Your task to perform on an android device: turn off notifications settings in the gmail app Image 0: 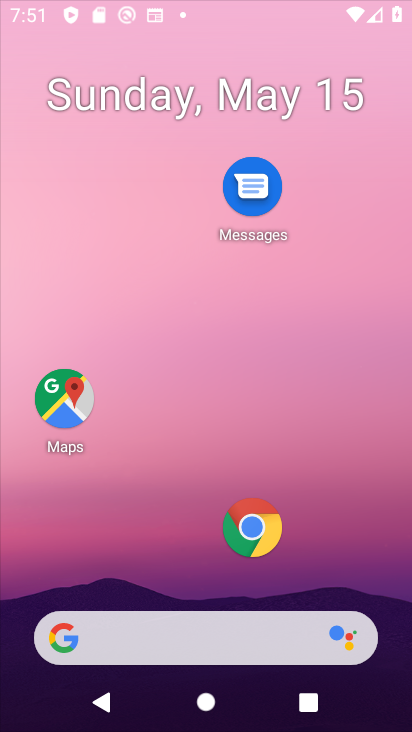
Step 0: press home button
Your task to perform on an android device: turn off notifications settings in the gmail app Image 1: 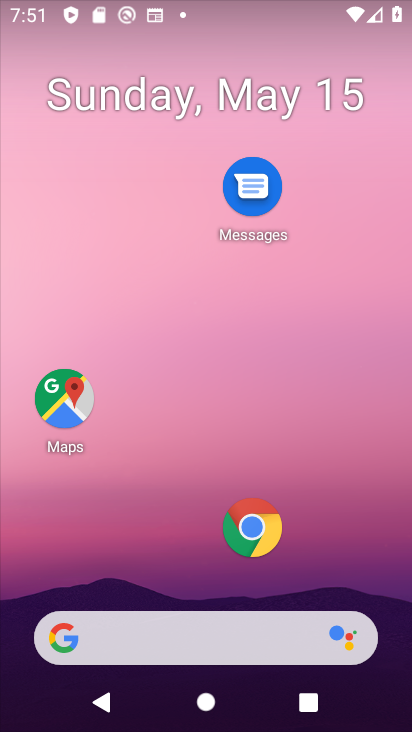
Step 1: drag from (160, 637) to (297, 72)
Your task to perform on an android device: turn off notifications settings in the gmail app Image 2: 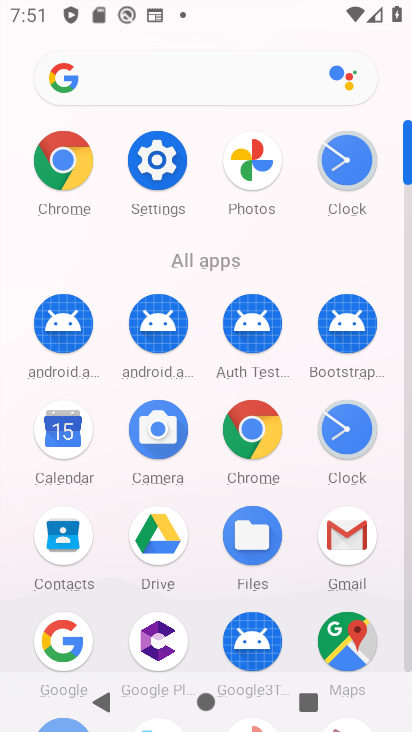
Step 2: click (342, 542)
Your task to perform on an android device: turn off notifications settings in the gmail app Image 3: 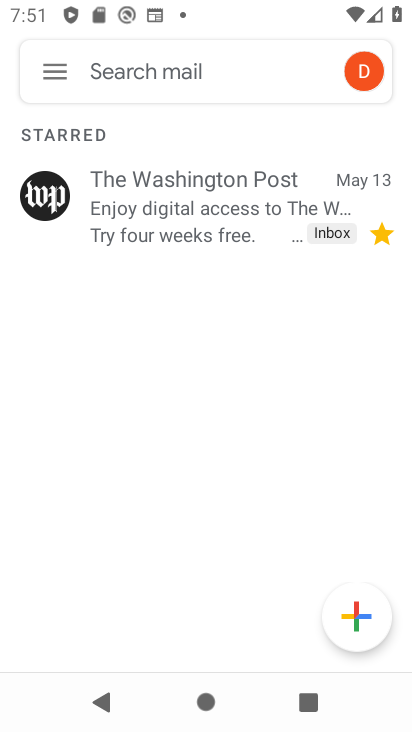
Step 3: click (51, 78)
Your task to perform on an android device: turn off notifications settings in the gmail app Image 4: 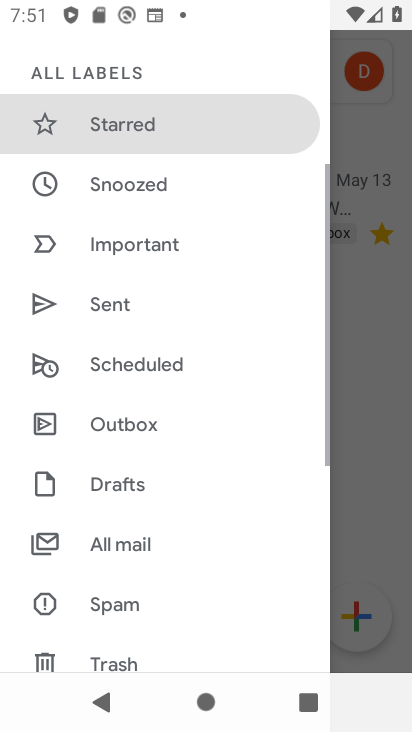
Step 4: drag from (163, 596) to (342, 65)
Your task to perform on an android device: turn off notifications settings in the gmail app Image 5: 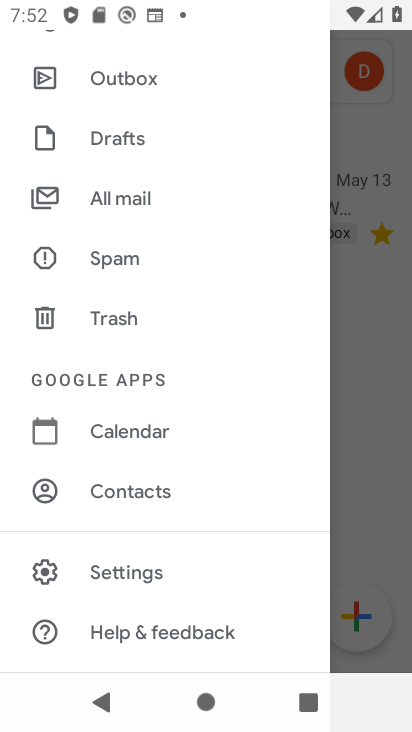
Step 5: click (149, 576)
Your task to perform on an android device: turn off notifications settings in the gmail app Image 6: 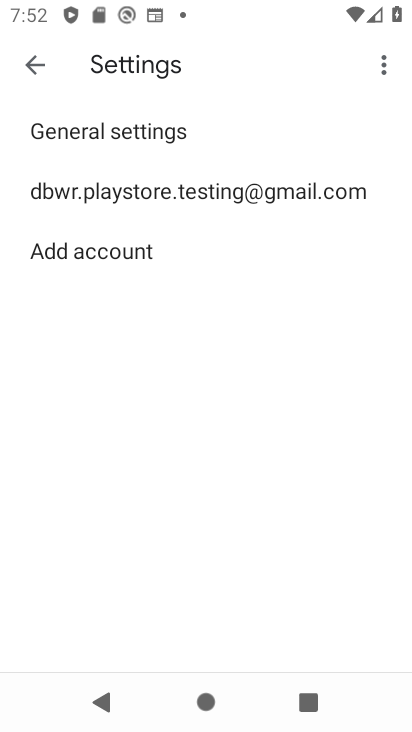
Step 6: click (280, 194)
Your task to perform on an android device: turn off notifications settings in the gmail app Image 7: 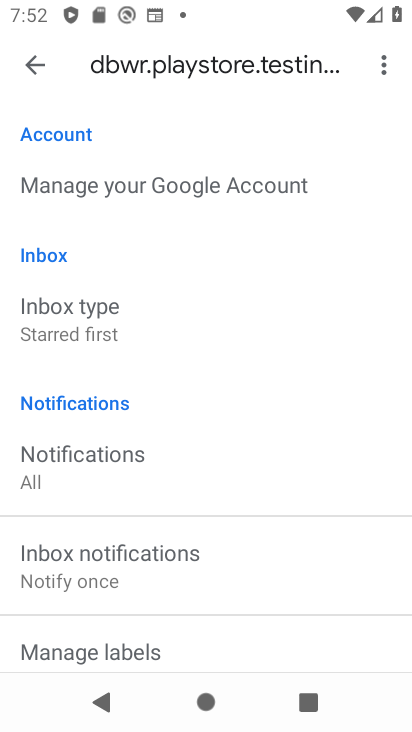
Step 7: click (112, 460)
Your task to perform on an android device: turn off notifications settings in the gmail app Image 8: 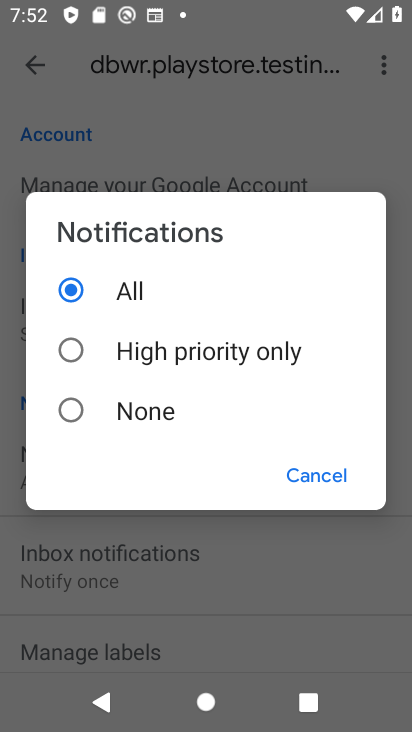
Step 8: click (63, 410)
Your task to perform on an android device: turn off notifications settings in the gmail app Image 9: 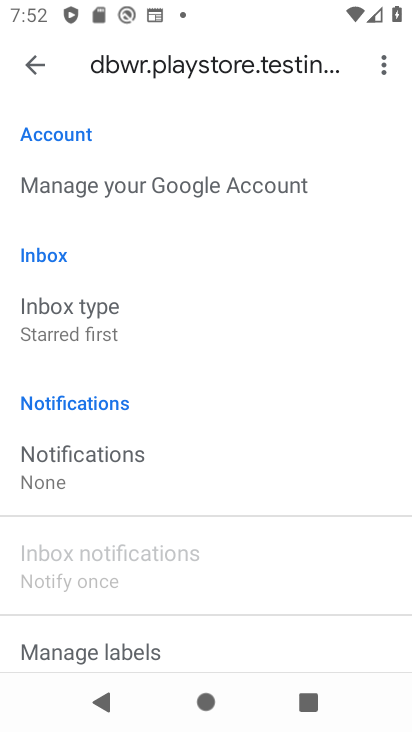
Step 9: task complete